Your task to perform on an android device: check data usage Image 0: 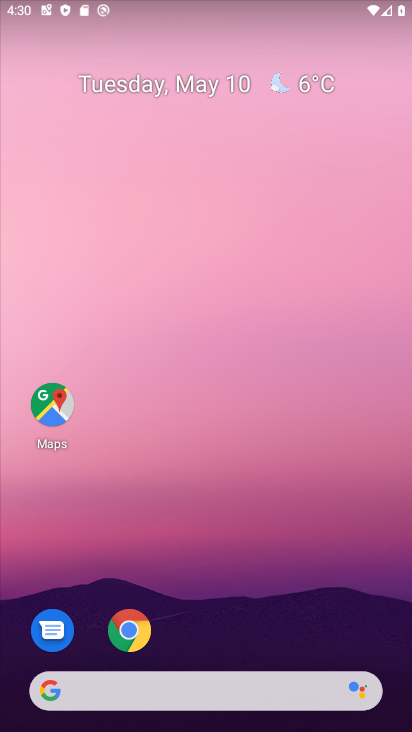
Step 0: drag from (285, 609) to (265, 278)
Your task to perform on an android device: check data usage Image 1: 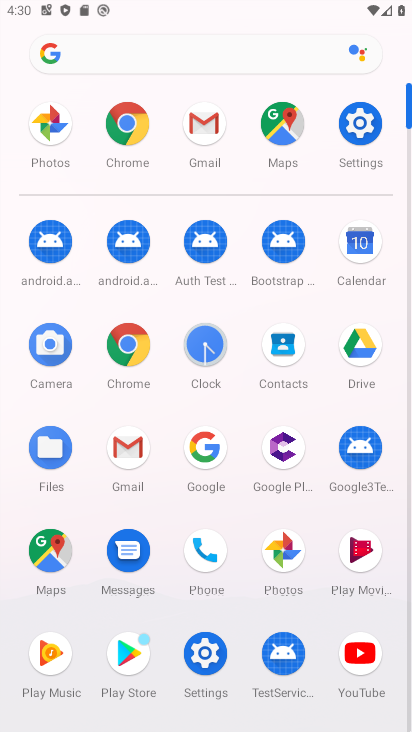
Step 1: click (372, 124)
Your task to perform on an android device: check data usage Image 2: 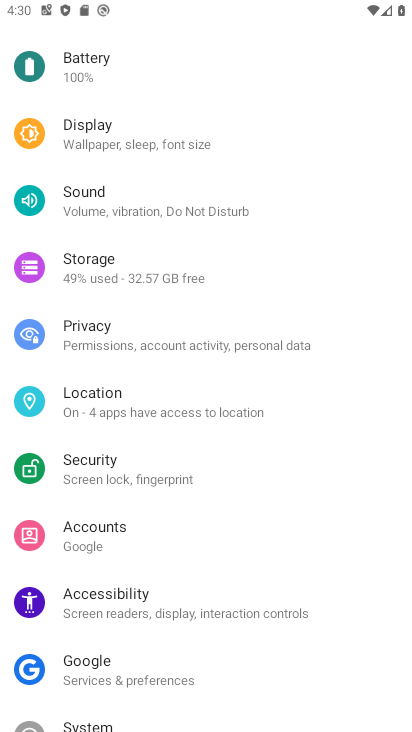
Step 2: drag from (171, 177) to (212, 561)
Your task to perform on an android device: check data usage Image 3: 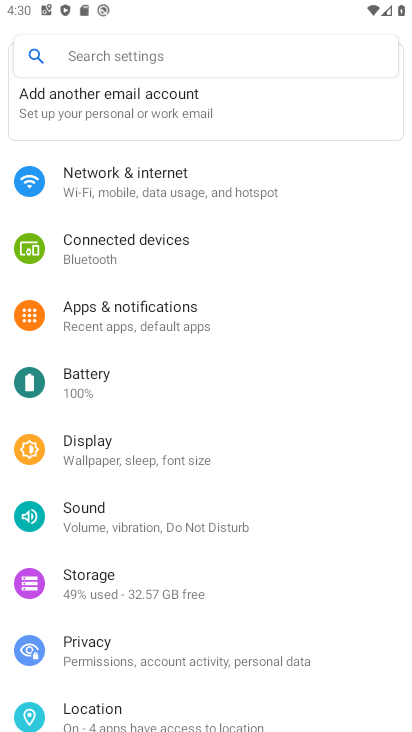
Step 3: click (178, 176)
Your task to perform on an android device: check data usage Image 4: 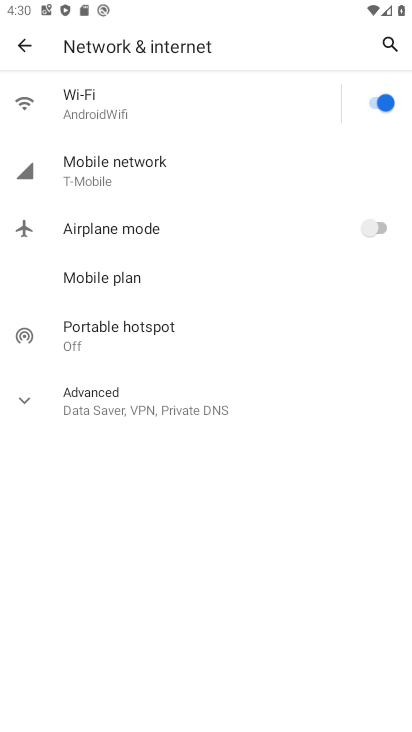
Step 4: click (181, 160)
Your task to perform on an android device: check data usage Image 5: 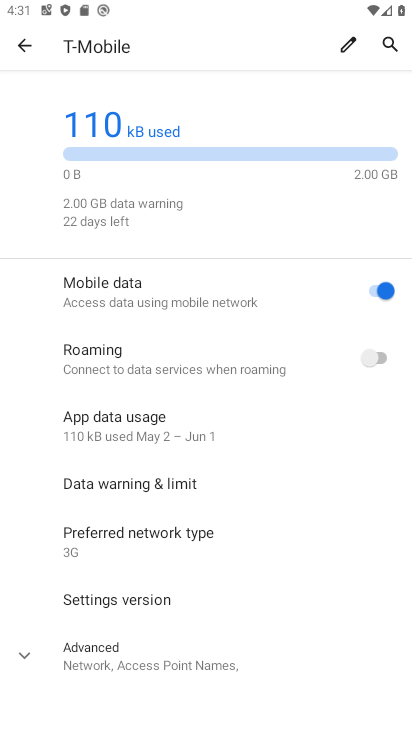
Step 5: task complete